Your task to perform on an android device: Check the news Image 0: 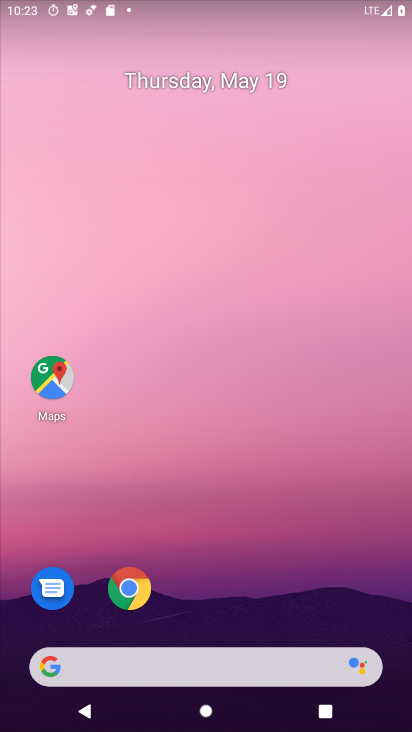
Step 0: press home button
Your task to perform on an android device: Check the news Image 1: 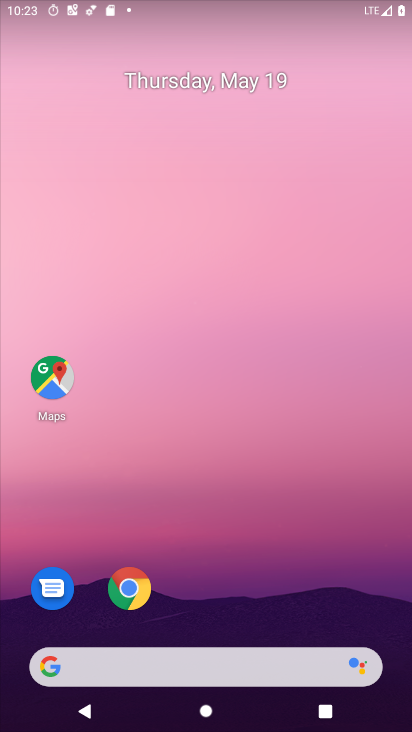
Step 1: click (56, 665)
Your task to perform on an android device: Check the news Image 2: 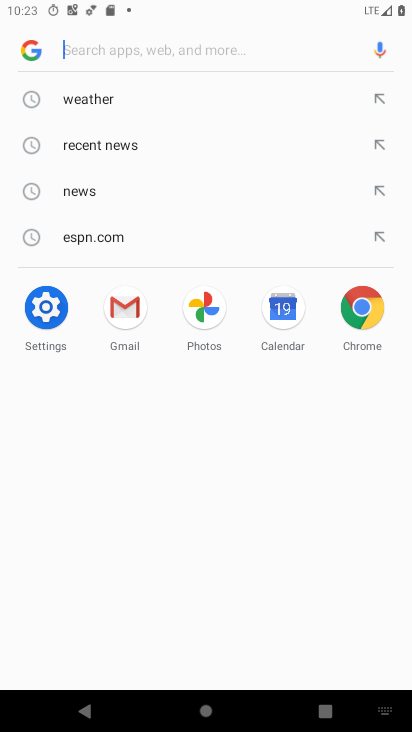
Step 2: click (75, 195)
Your task to perform on an android device: Check the news Image 3: 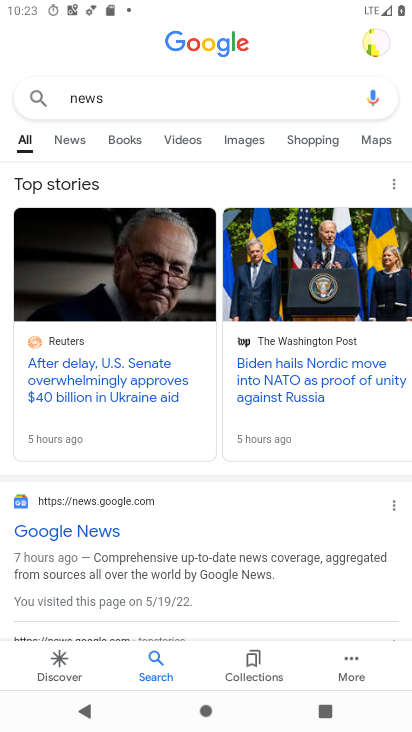
Step 3: click (64, 137)
Your task to perform on an android device: Check the news Image 4: 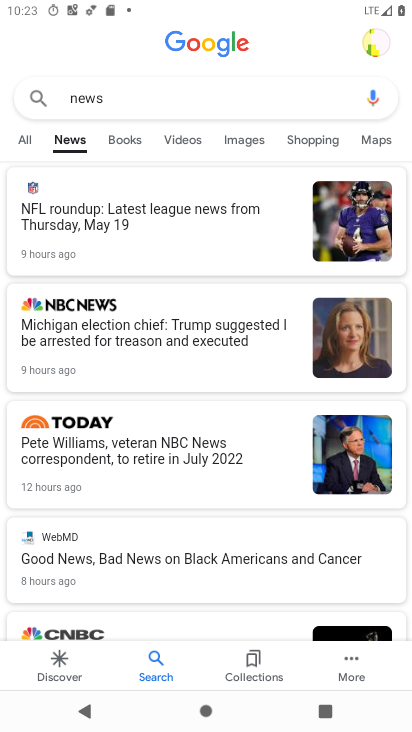
Step 4: task complete